Your task to perform on an android device: install app "Chime – Mobile Banking" Image 0: 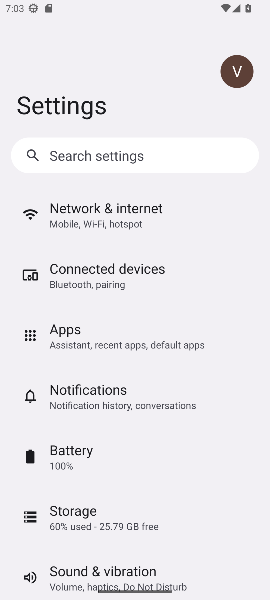
Step 0: press home button
Your task to perform on an android device: install app "Chime – Mobile Banking" Image 1: 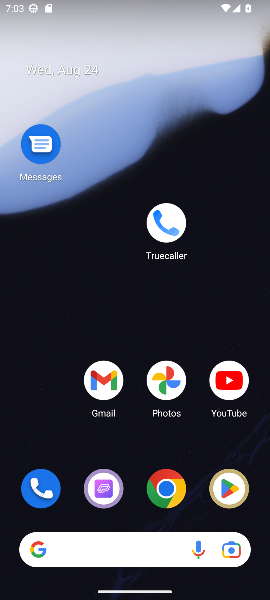
Step 1: click (242, 496)
Your task to perform on an android device: install app "Chime – Mobile Banking" Image 2: 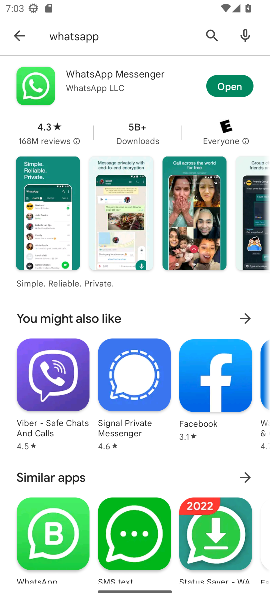
Step 2: click (208, 45)
Your task to perform on an android device: install app "Chime – Mobile Banking" Image 3: 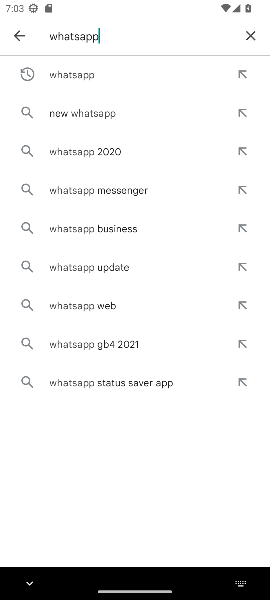
Step 3: click (244, 39)
Your task to perform on an android device: install app "Chime – Mobile Banking" Image 4: 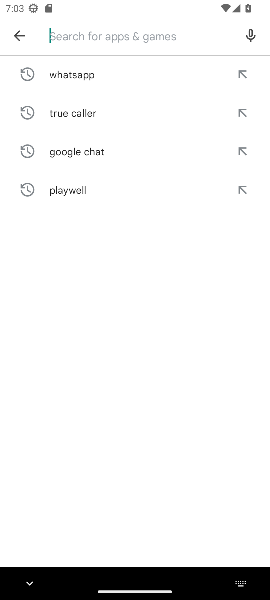
Step 4: type "chime"
Your task to perform on an android device: install app "Chime – Mobile Banking" Image 5: 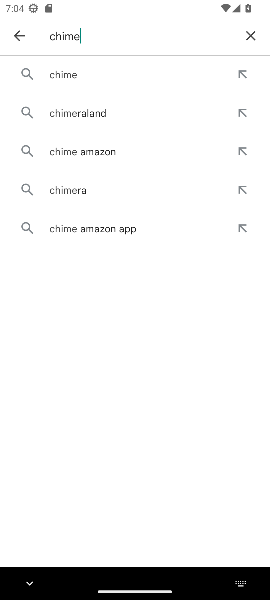
Step 5: click (130, 63)
Your task to perform on an android device: install app "Chime – Mobile Banking" Image 6: 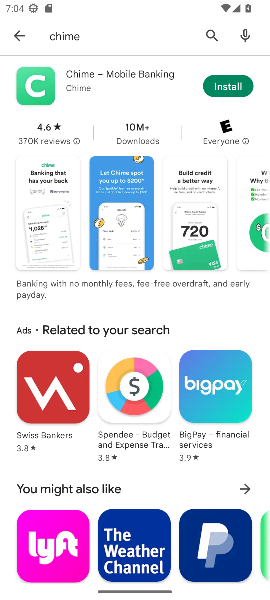
Step 6: click (237, 87)
Your task to perform on an android device: install app "Chime – Mobile Banking" Image 7: 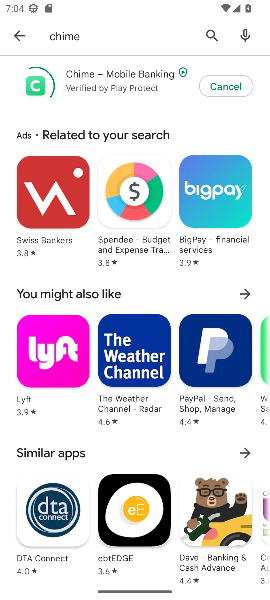
Step 7: task complete